Your task to perform on an android device: Open calendar and show me the fourth week of next month Image 0: 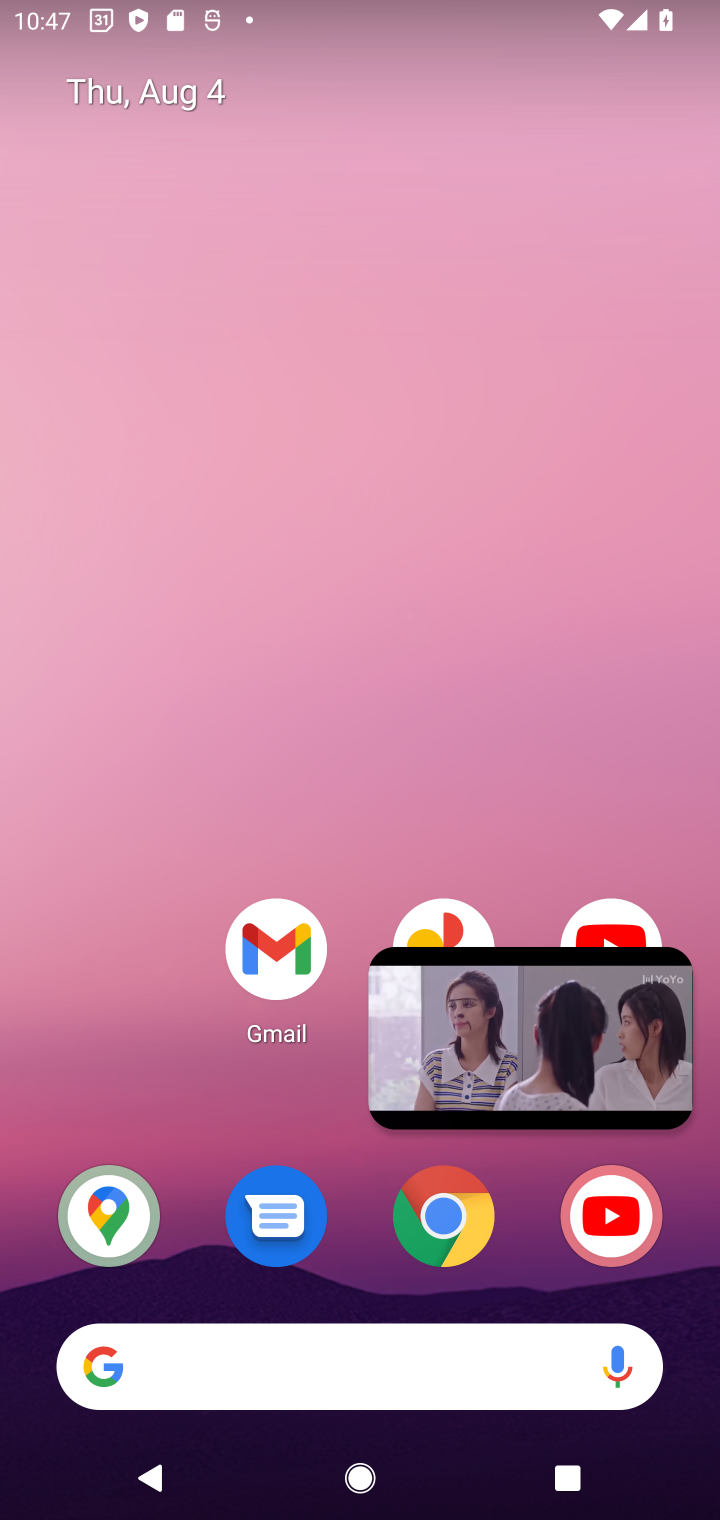
Step 0: click (636, 994)
Your task to perform on an android device: Open calendar and show me the fourth week of next month Image 1: 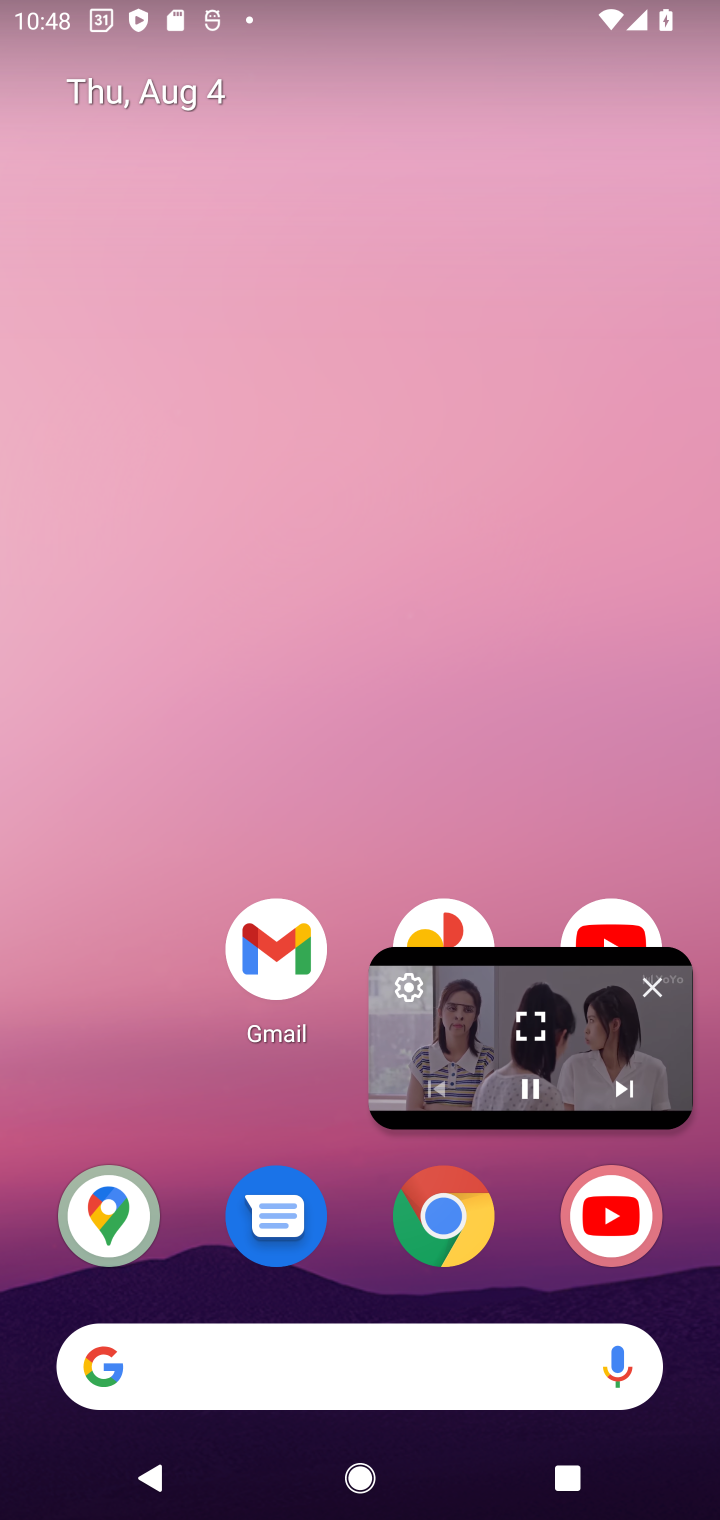
Step 1: click (645, 993)
Your task to perform on an android device: Open calendar and show me the fourth week of next month Image 2: 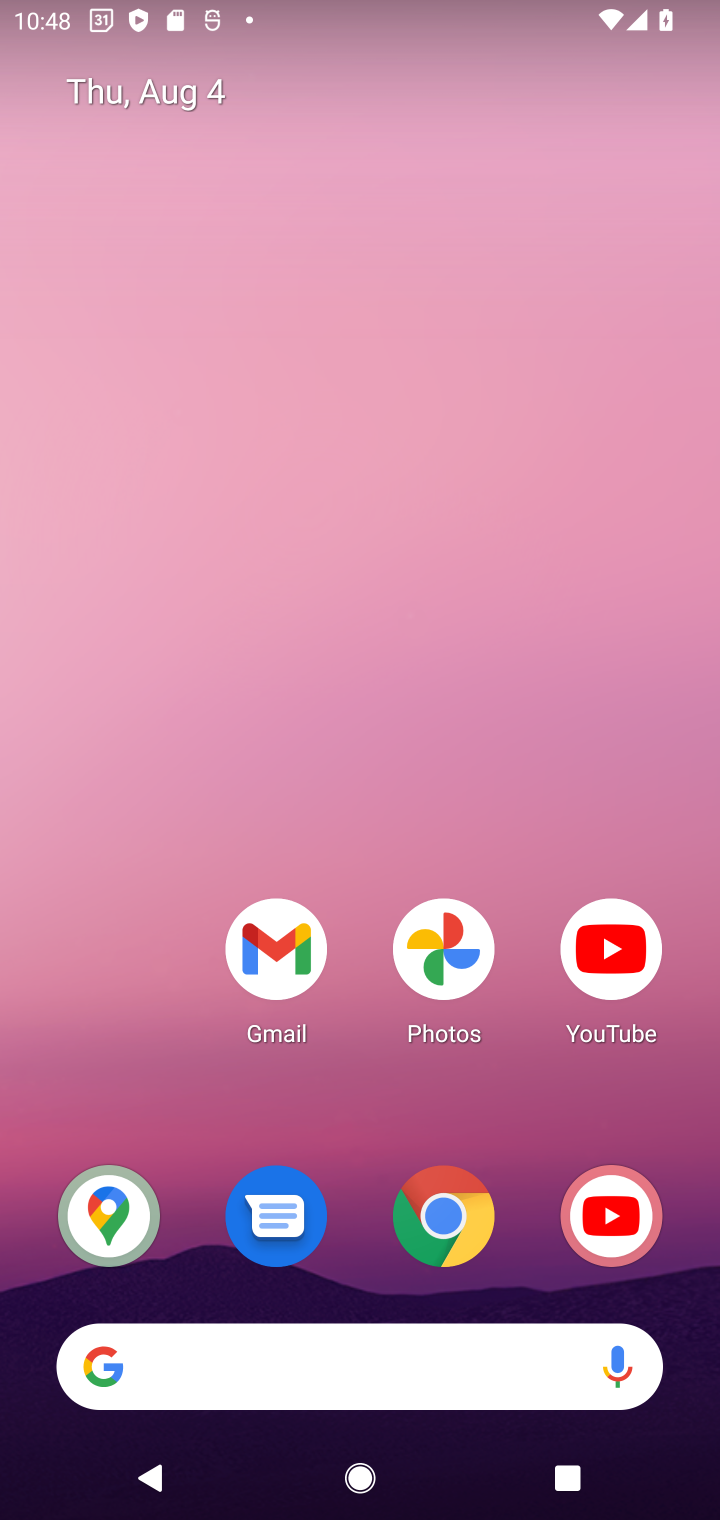
Step 2: drag from (302, 1333) to (316, 316)
Your task to perform on an android device: Open calendar and show me the fourth week of next month Image 3: 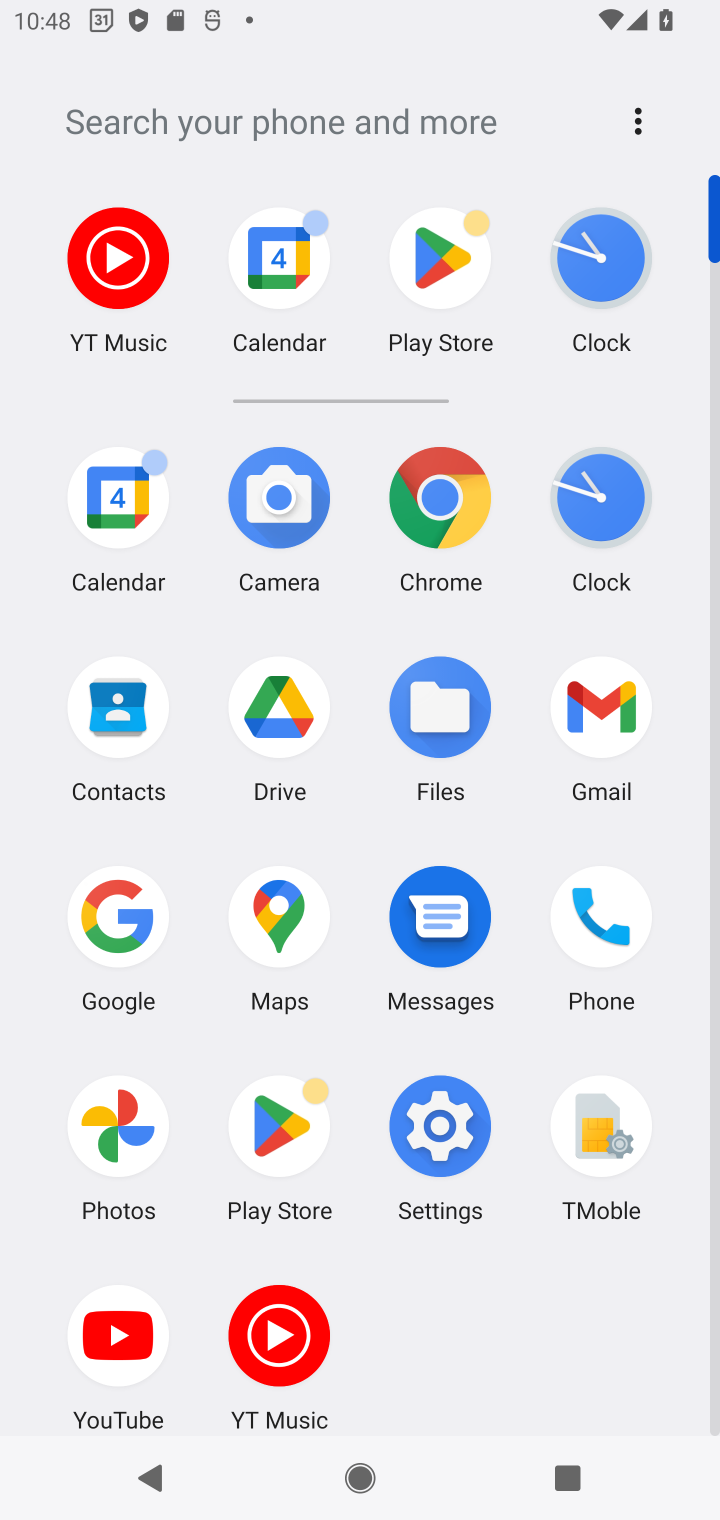
Step 3: click (128, 499)
Your task to perform on an android device: Open calendar and show me the fourth week of next month Image 4: 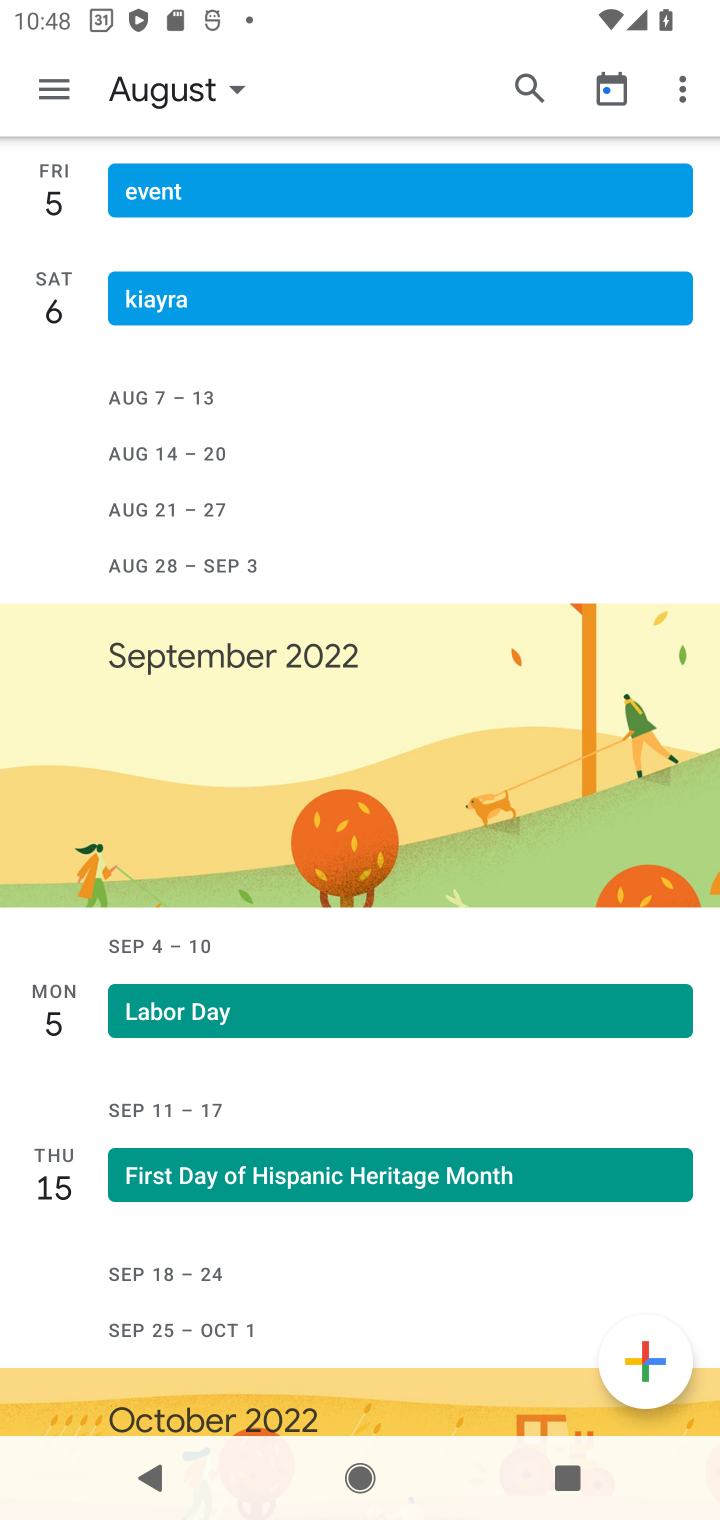
Step 4: click (610, 88)
Your task to perform on an android device: Open calendar and show me the fourth week of next month Image 5: 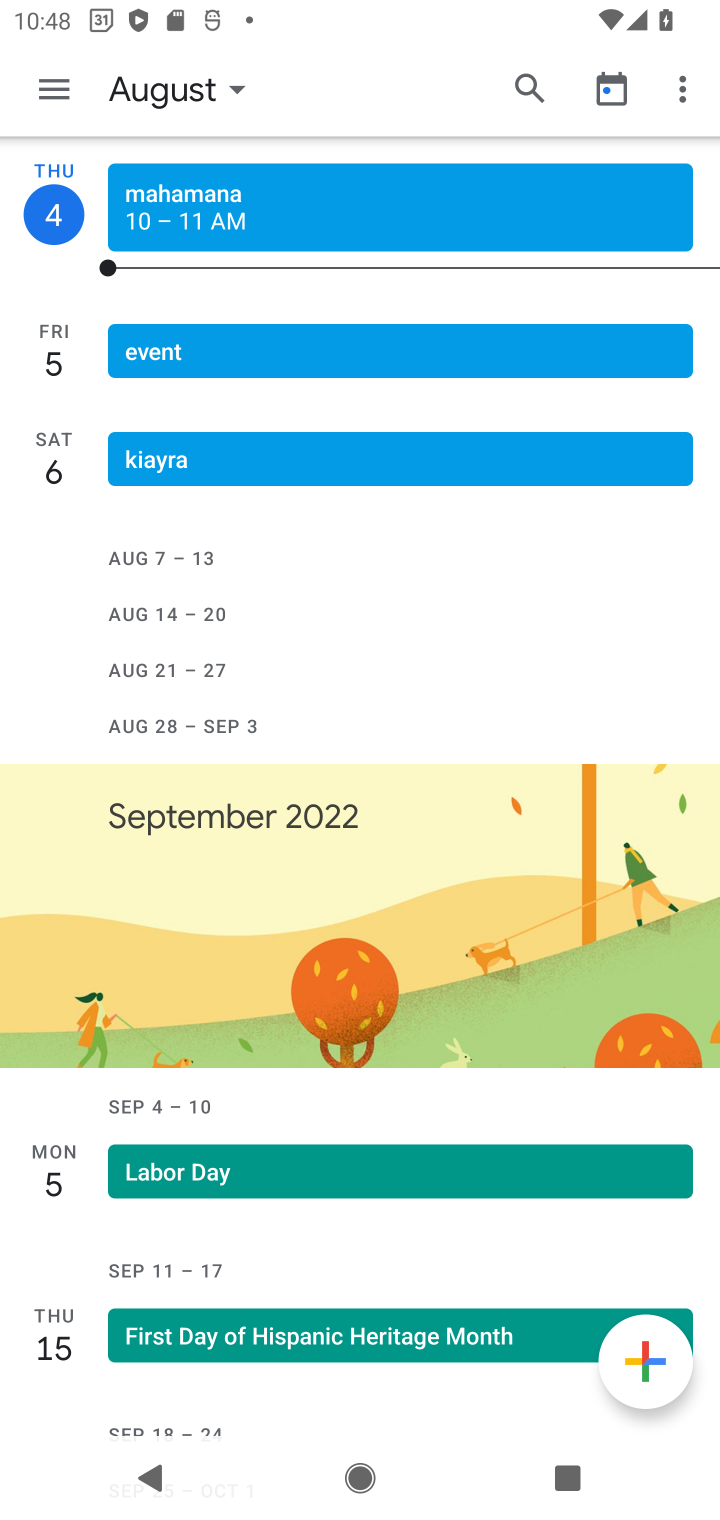
Step 5: click (226, 82)
Your task to perform on an android device: Open calendar and show me the fourth week of next month Image 6: 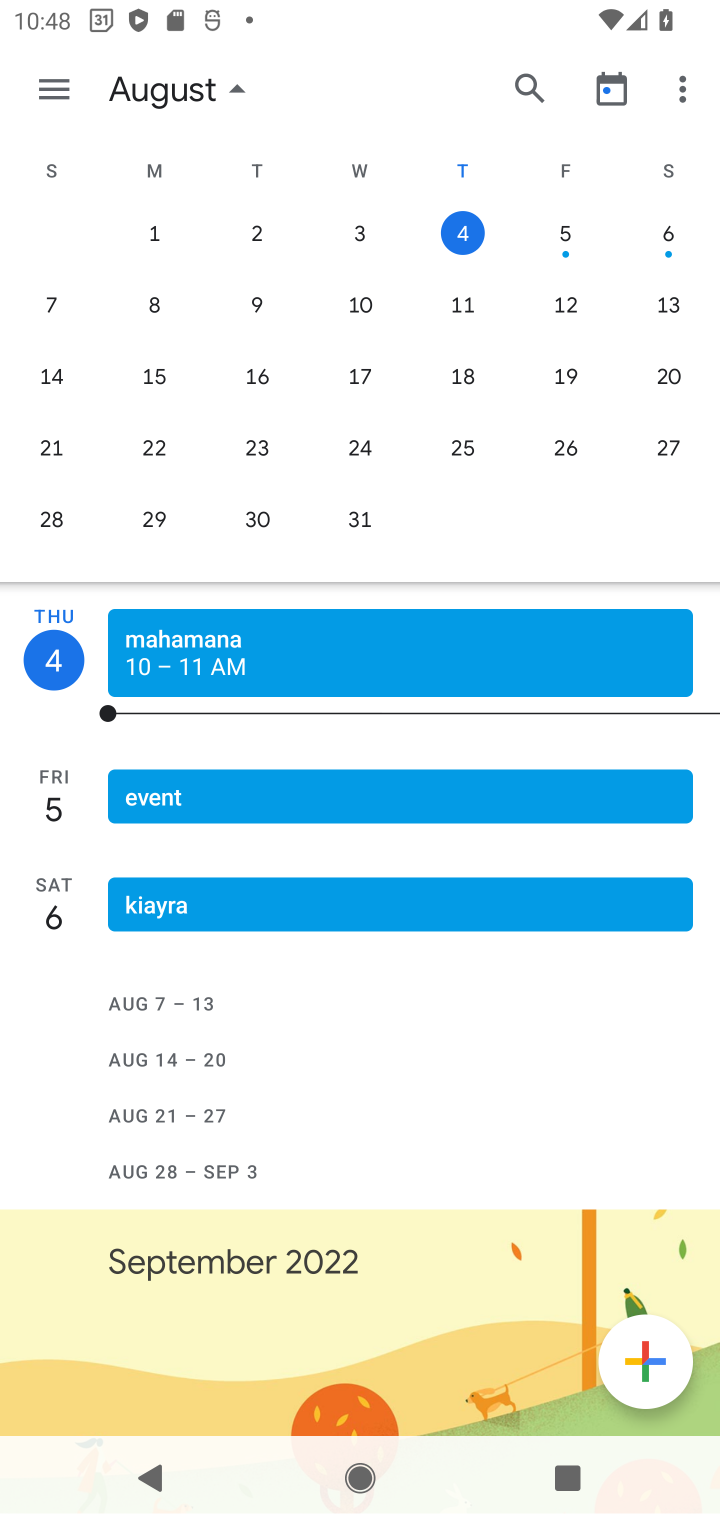
Step 6: drag from (699, 407) to (26, 449)
Your task to perform on an android device: Open calendar and show me the fourth week of next month Image 7: 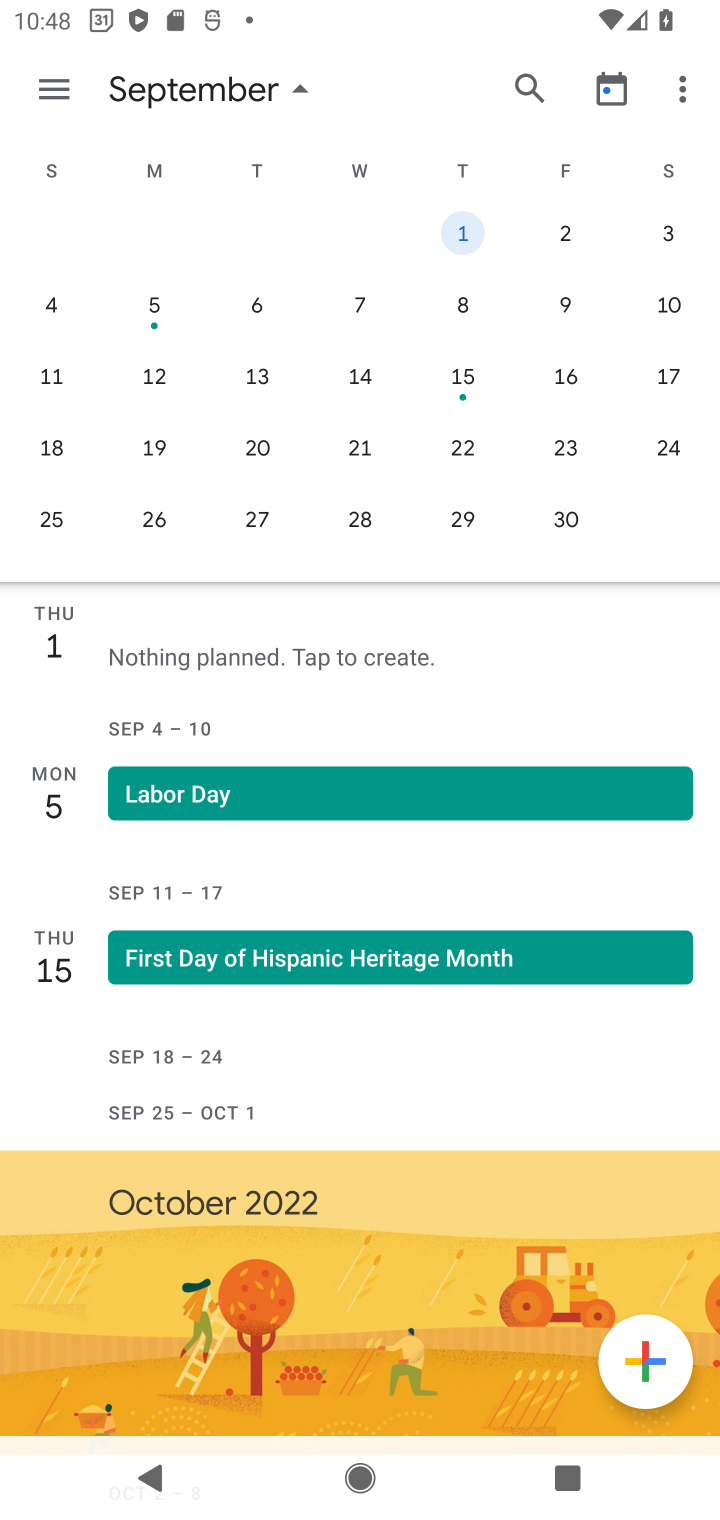
Step 7: click (155, 526)
Your task to perform on an android device: Open calendar and show me the fourth week of next month Image 8: 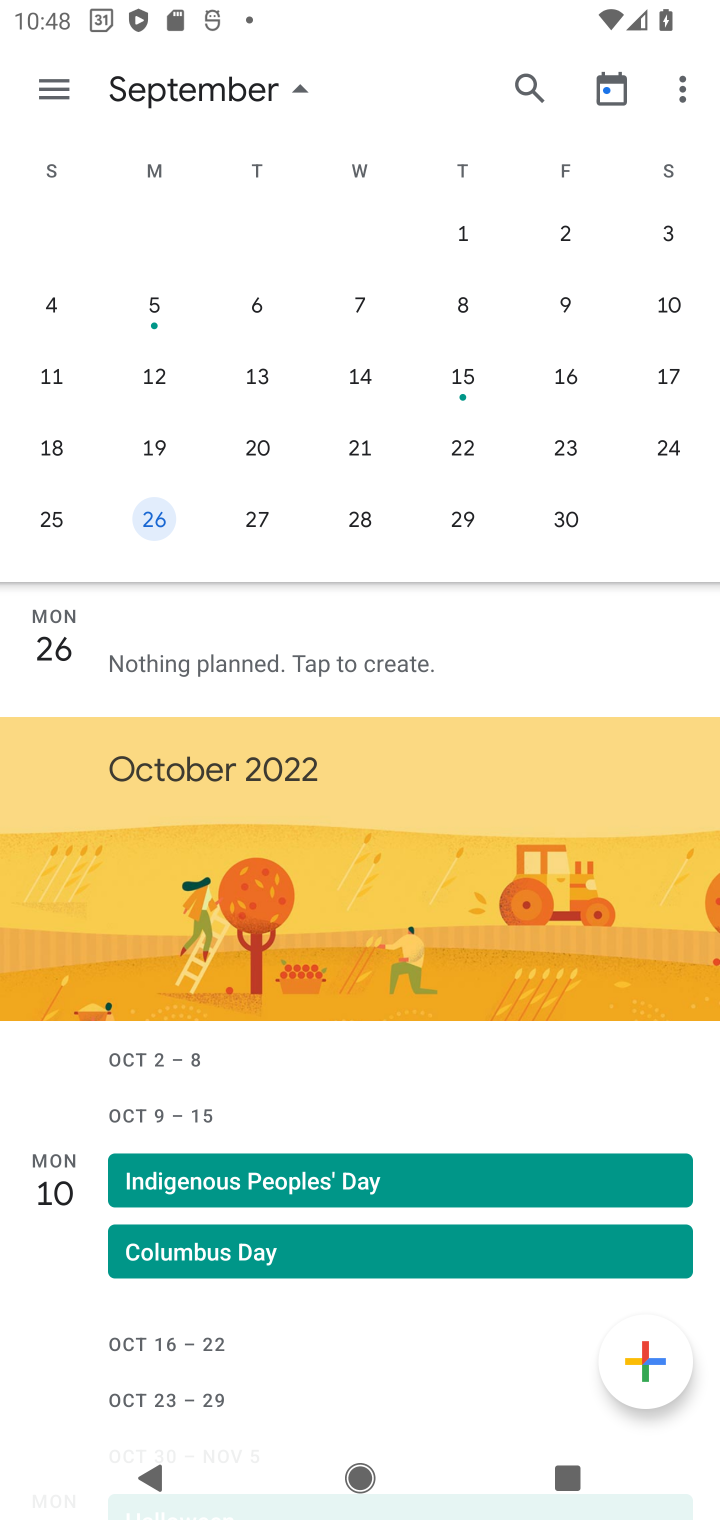
Step 8: click (51, 102)
Your task to perform on an android device: Open calendar and show me the fourth week of next month Image 9: 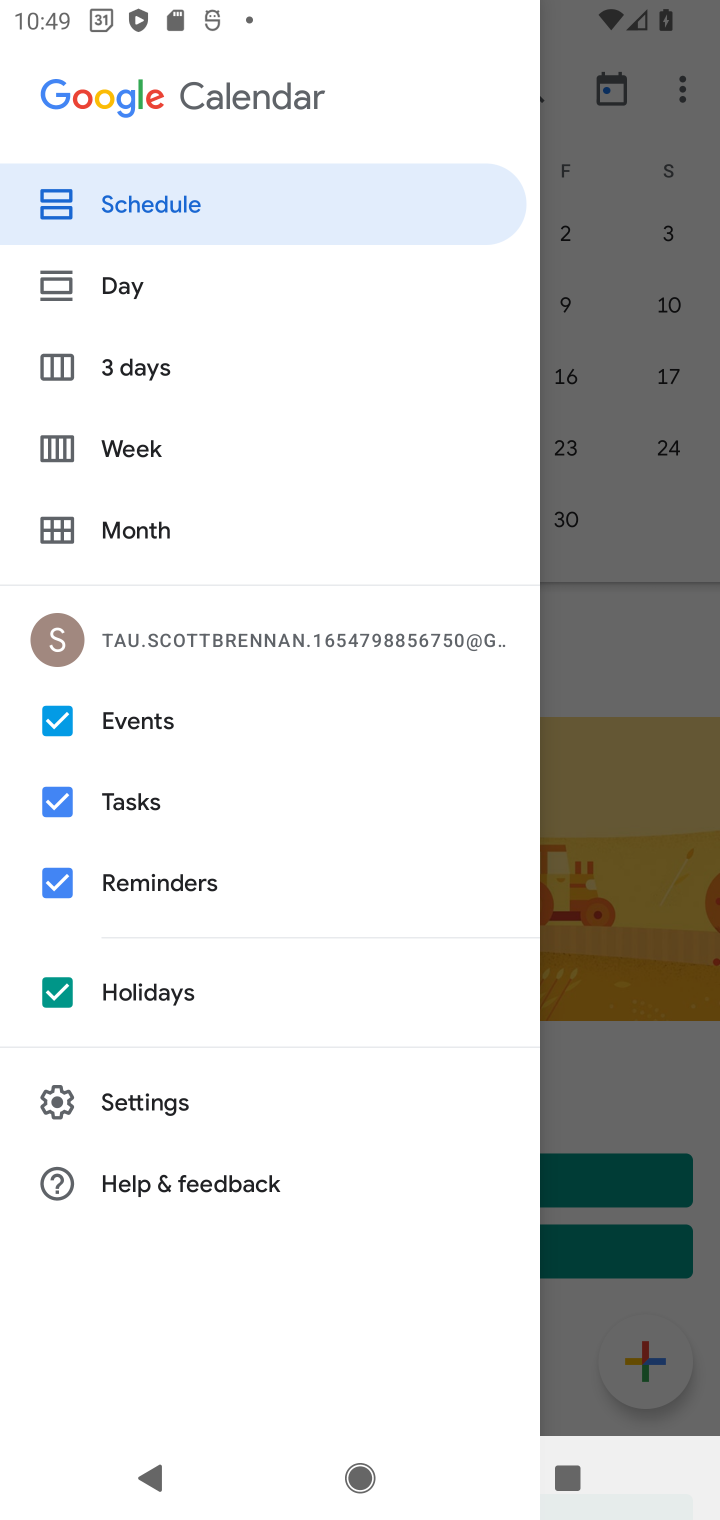
Step 9: click (134, 464)
Your task to perform on an android device: Open calendar and show me the fourth week of next month Image 10: 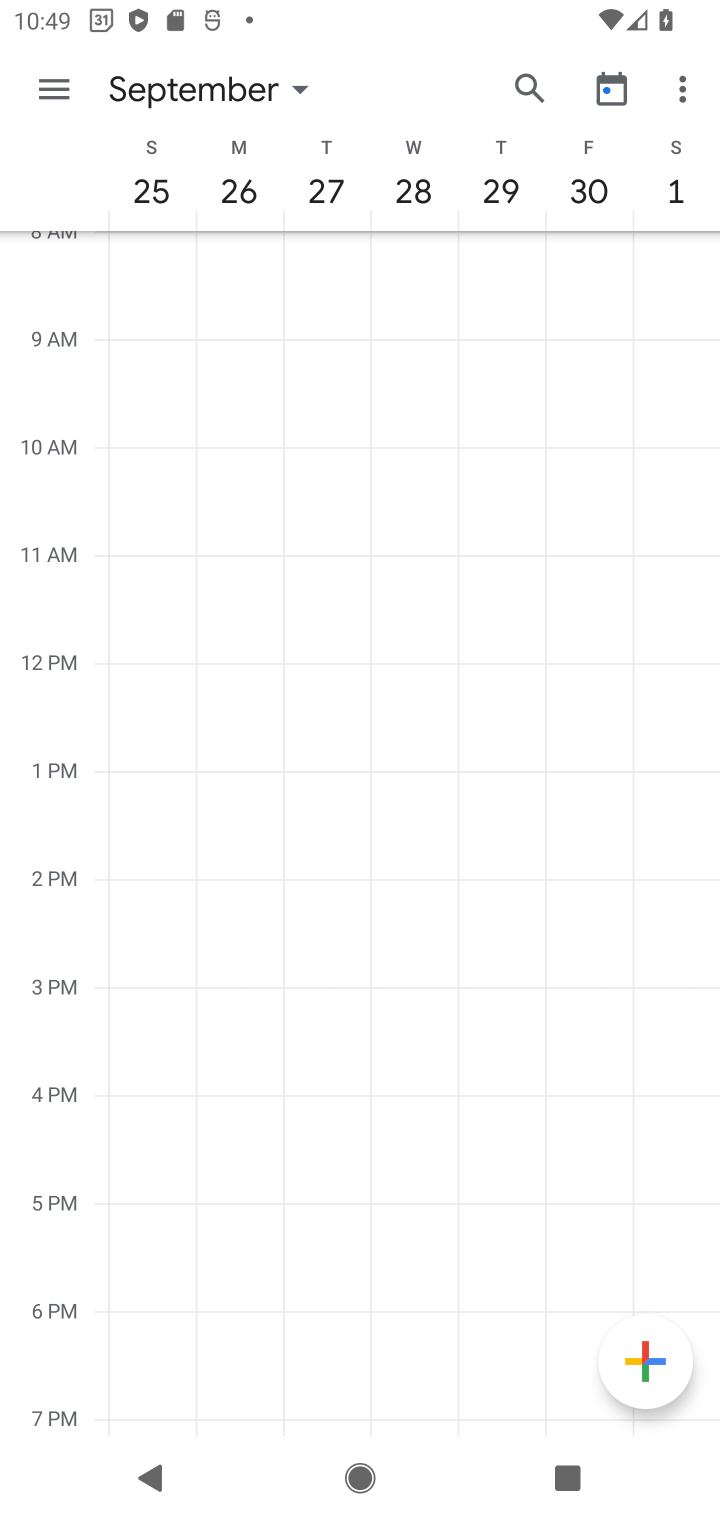
Step 10: task complete